Your task to perform on an android device: Open Reddit.com Image 0: 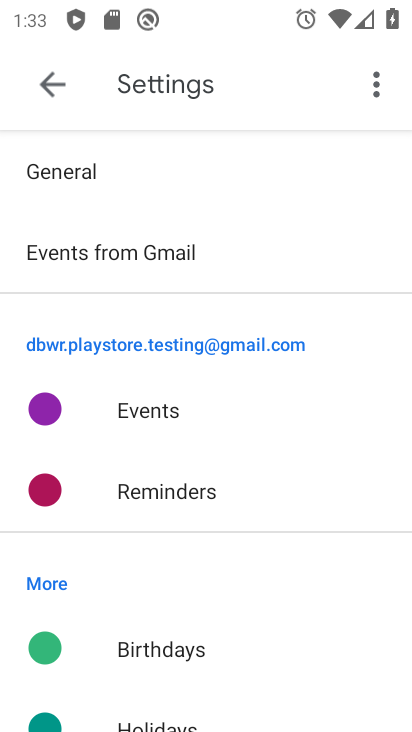
Step 0: press home button
Your task to perform on an android device: Open Reddit.com Image 1: 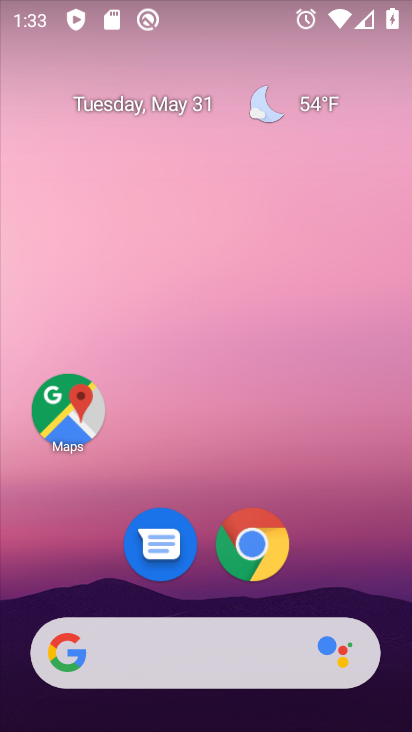
Step 1: click (251, 551)
Your task to perform on an android device: Open Reddit.com Image 2: 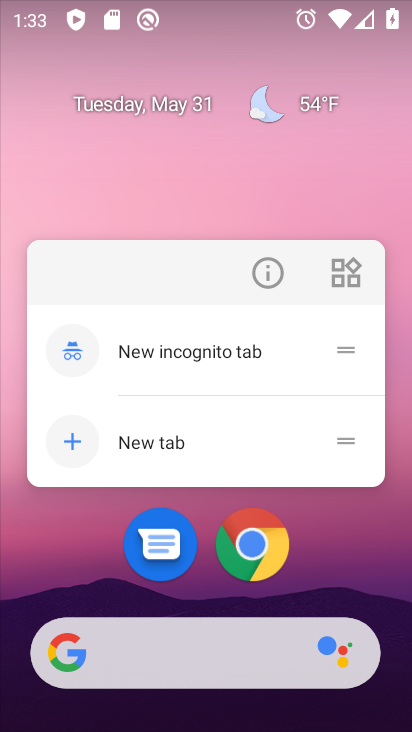
Step 2: click (281, 536)
Your task to perform on an android device: Open Reddit.com Image 3: 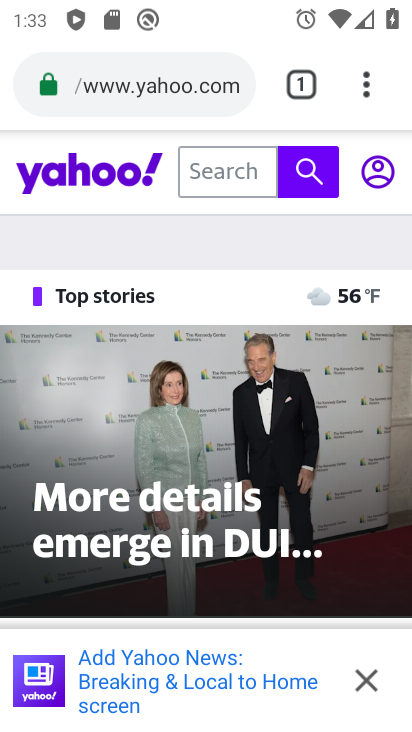
Step 3: click (156, 87)
Your task to perform on an android device: Open Reddit.com Image 4: 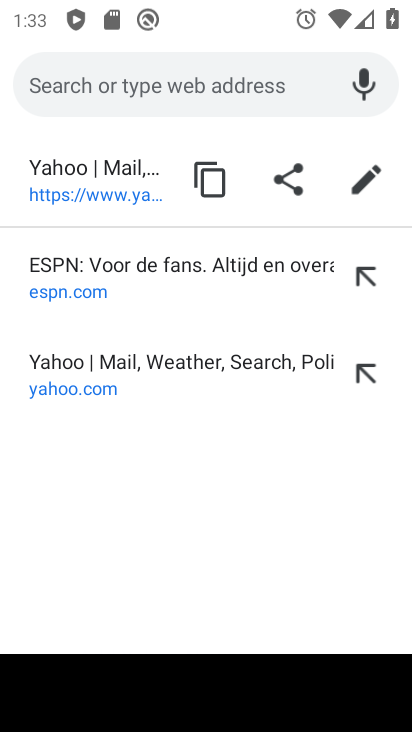
Step 4: type "Reddit.com"
Your task to perform on an android device: Open Reddit.com Image 5: 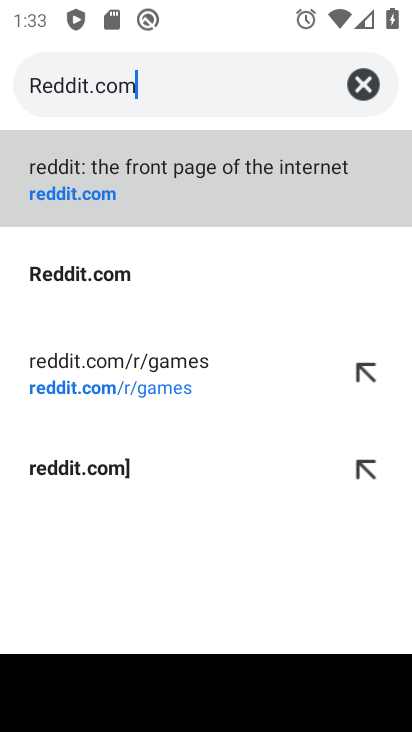
Step 5: click (102, 191)
Your task to perform on an android device: Open Reddit.com Image 6: 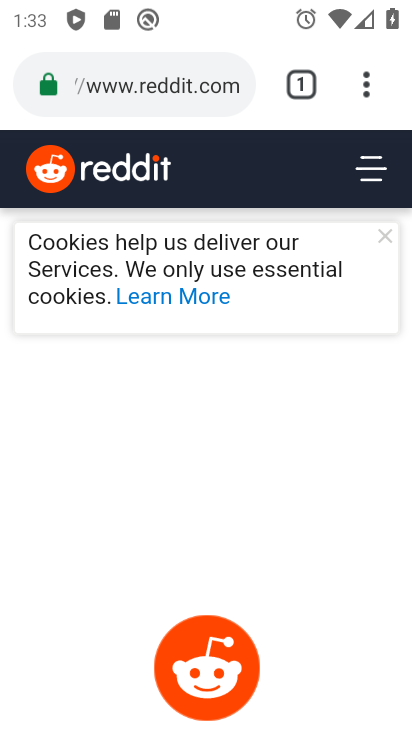
Step 6: task complete